Your task to perform on an android device: empty trash in the gmail app Image 0: 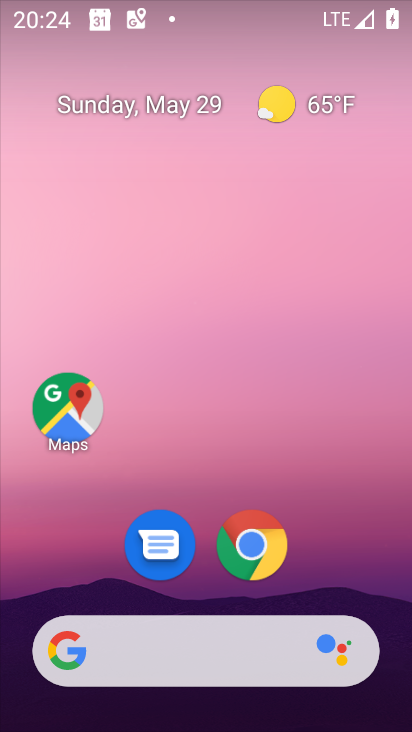
Step 0: drag from (206, 581) to (196, 233)
Your task to perform on an android device: empty trash in the gmail app Image 1: 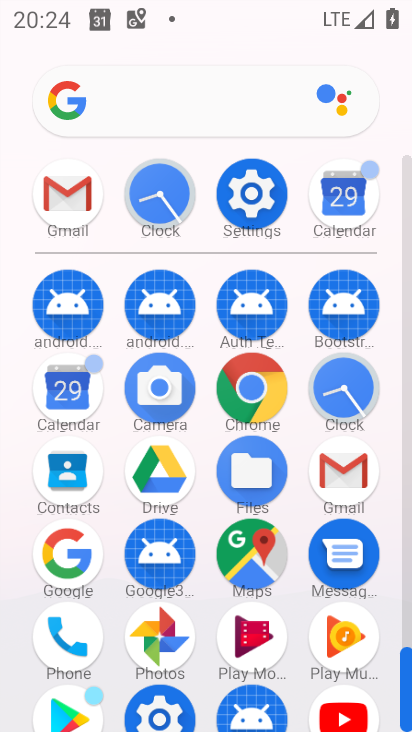
Step 1: click (332, 466)
Your task to perform on an android device: empty trash in the gmail app Image 2: 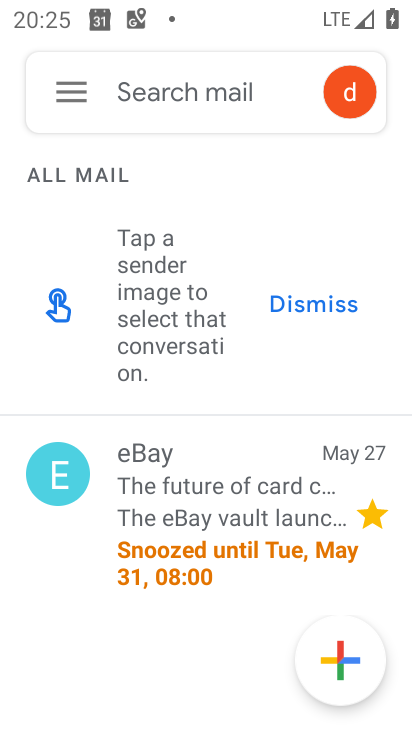
Step 2: click (79, 91)
Your task to perform on an android device: empty trash in the gmail app Image 3: 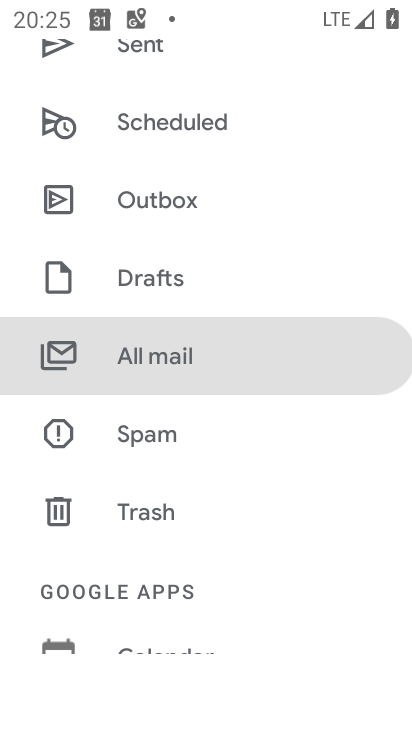
Step 3: click (112, 507)
Your task to perform on an android device: empty trash in the gmail app Image 4: 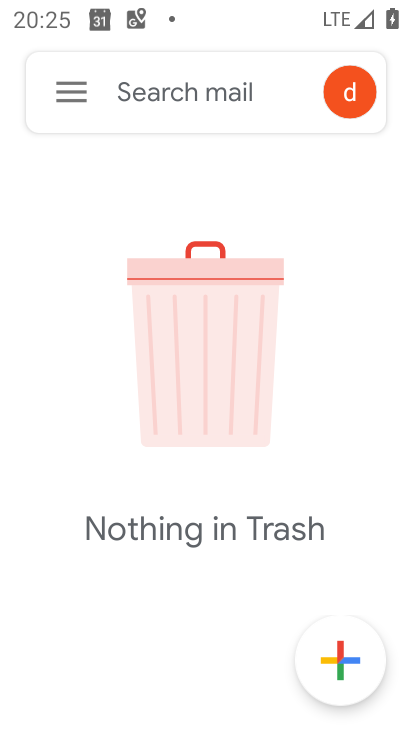
Step 4: task complete